Your task to perform on an android device: Search for seafood restaurants on Google Maps Image 0: 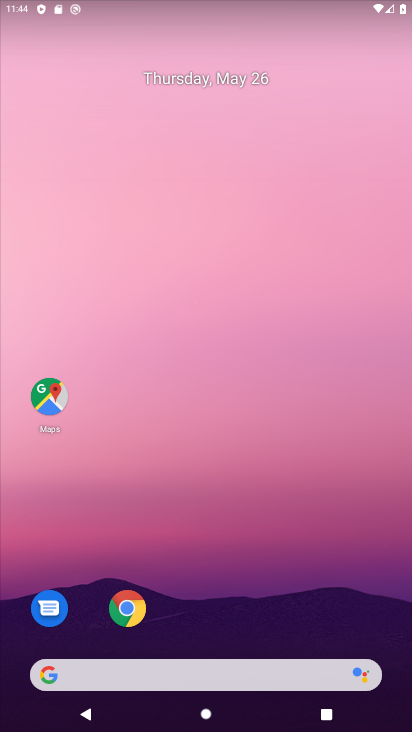
Step 0: drag from (254, 560) to (207, 27)
Your task to perform on an android device: Search for seafood restaurants on Google Maps Image 1: 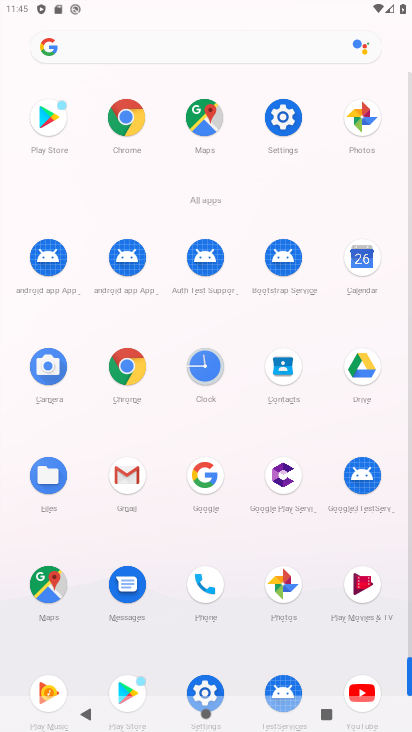
Step 1: drag from (9, 553) to (1, 188)
Your task to perform on an android device: Search for seafood restaurants on Google Maps Image 2: 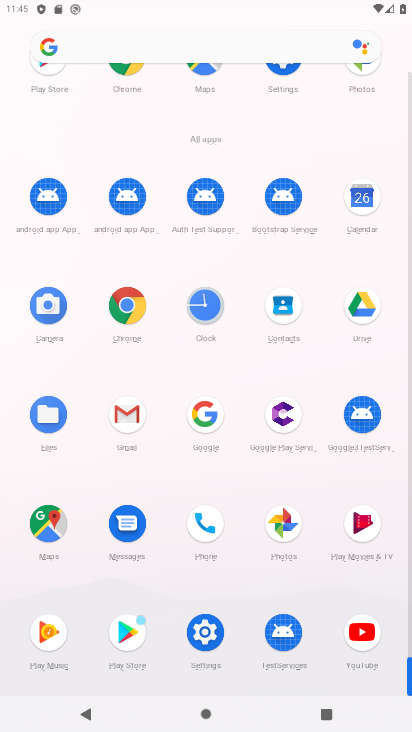
Step 2: click (44, 519)
Your task to perform on an android device: Search for seafood restaurants on Google Maps Image 3: 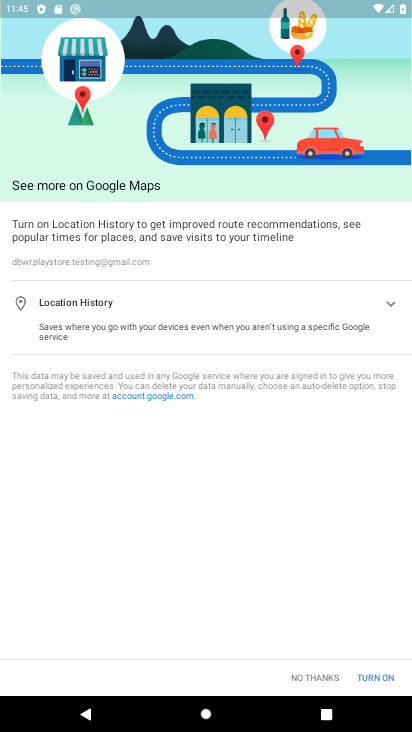
Step 3: click (367, 678)
Your task to perform on an android device: Search for seafood restaurants on Google Maps Image 4: 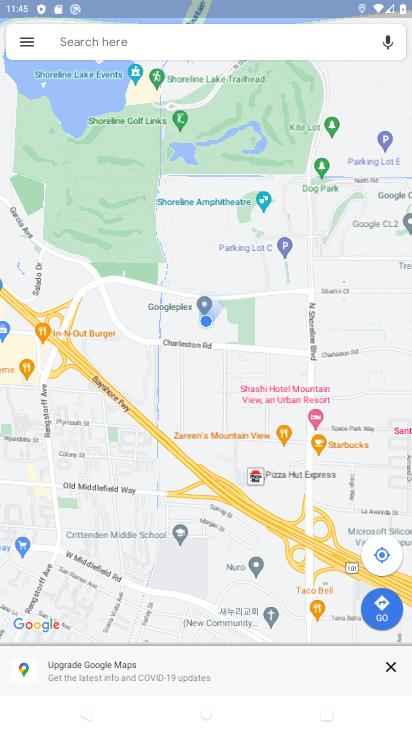
Step 4: click (140, 41)
Your task to perform on an android device: Search for seafood restaurants on Google Maps Image 5: 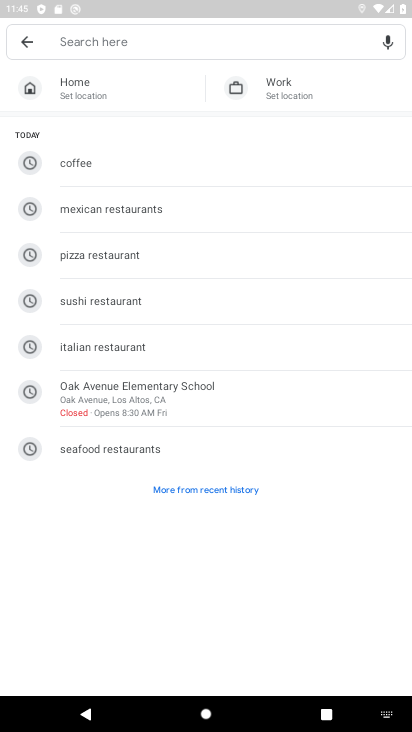
Step 5: click (122, 450)
Your task to perform on an android device: Search for seafood restaurants on Google Maps Image 6: 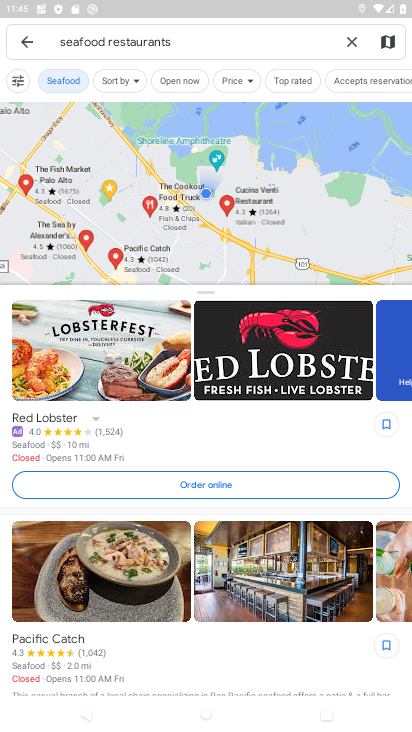
Step 6: task complete